Your task to perform on an android device: Turn on the flashlight Image 0: 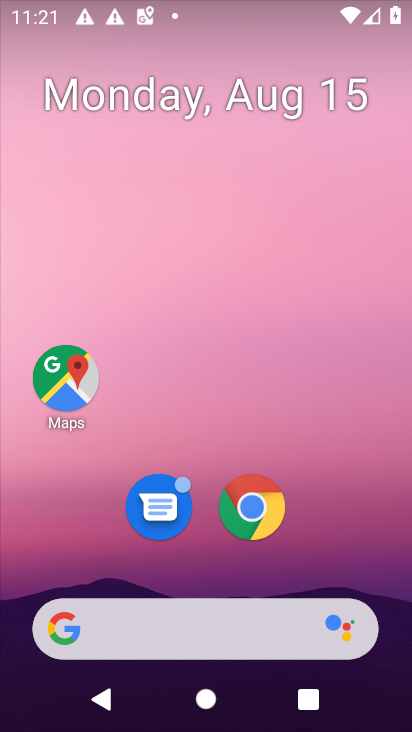
Step 0: drag from (210, 575) to (192, 10)
Your task to perform on an android device: Turn on the flashlight Image 1: 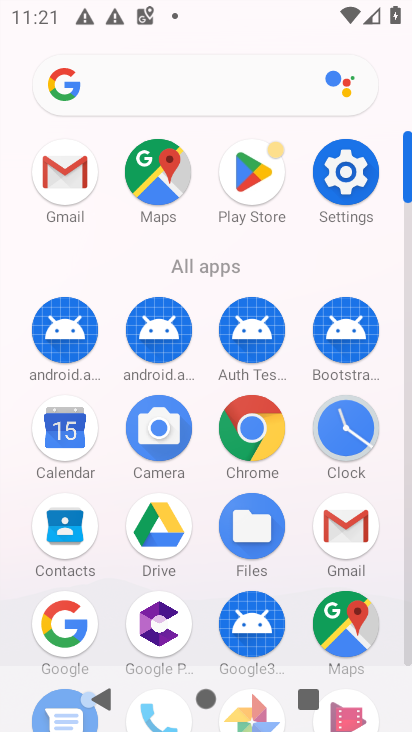
Step 1: click (345, 169)
Your task to perform on an android device: Turn on the flashlight Image 2: 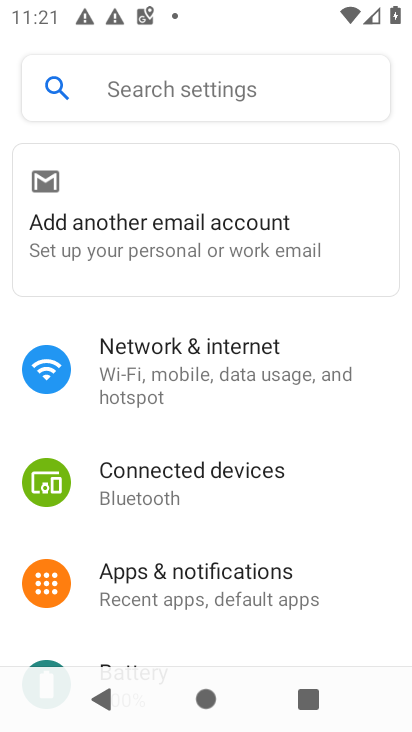
Step 2: drag from (224, 527) to (230, 327)
Your task to perform on an android device: Turn on the flashlight Image 3: 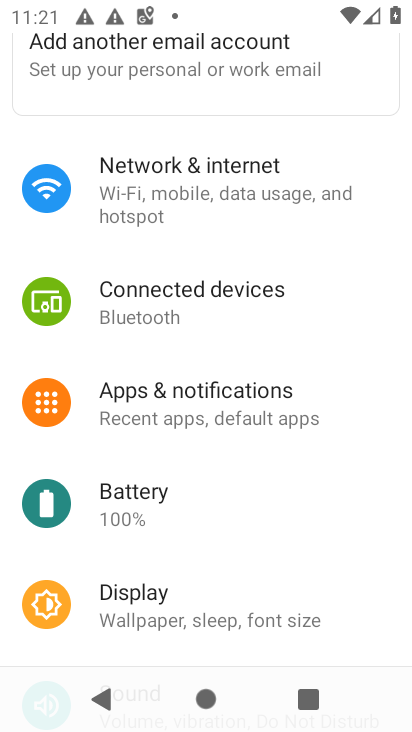
Step 3: click (130, 590)
Your task to perform on an android device: Turn on the flashlight Image 4: 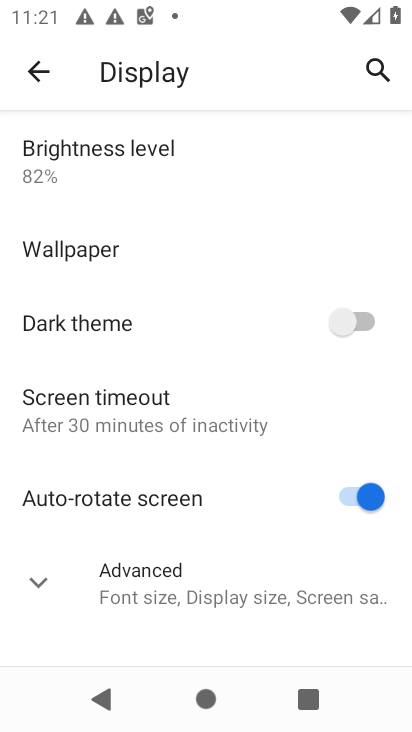
Step 4: task complete